Your task to perform on an android device: Check the news Image 0: 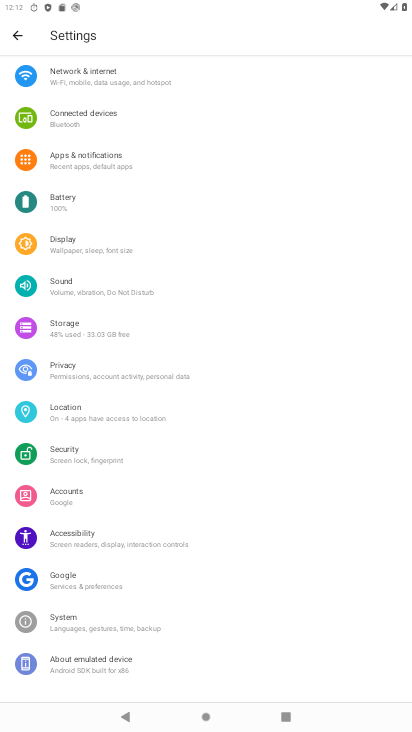
Step 0: press home button
Your task to perform on an android device: Check the news Image 1: 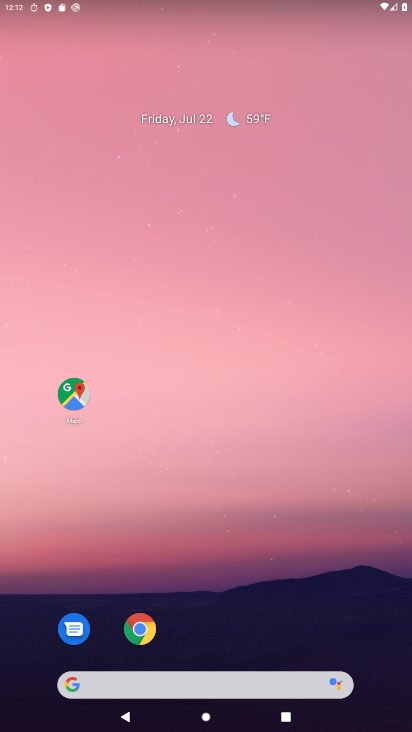
Step 1: drag from (217, 582) to (235, 93)
Your task to perform on an android device: Check the news Image 2: 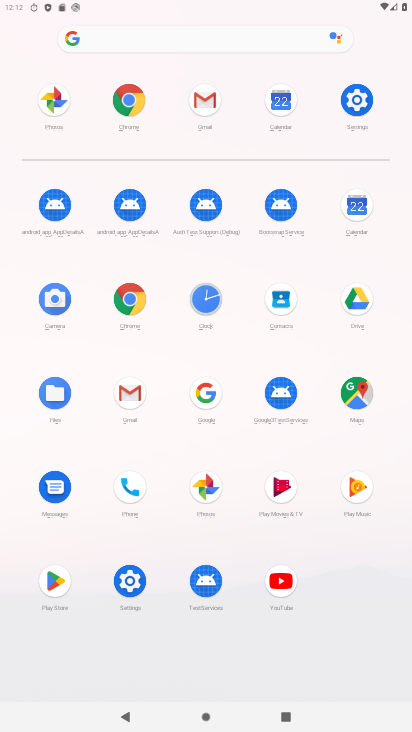
Step 2: click (132, 304)
Your task to perform on an android device: Check the news Image 3: 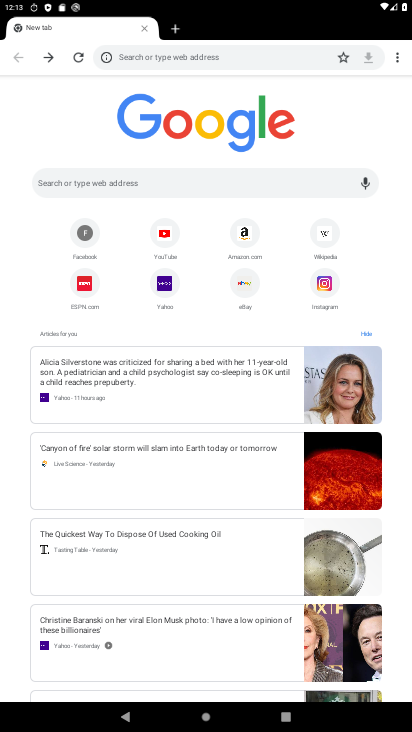
Step 3: click (198, 179)
Your task to perform on an android device: Check the news Image 4: 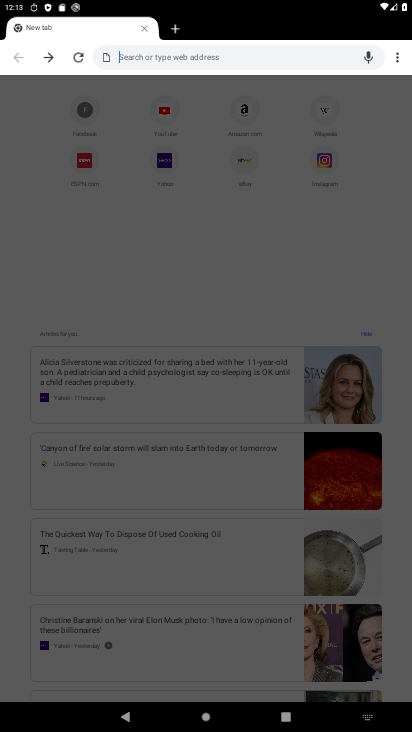
Step 4: click (228, 61)
Your task to perform on an android device: Check the news Image 5: 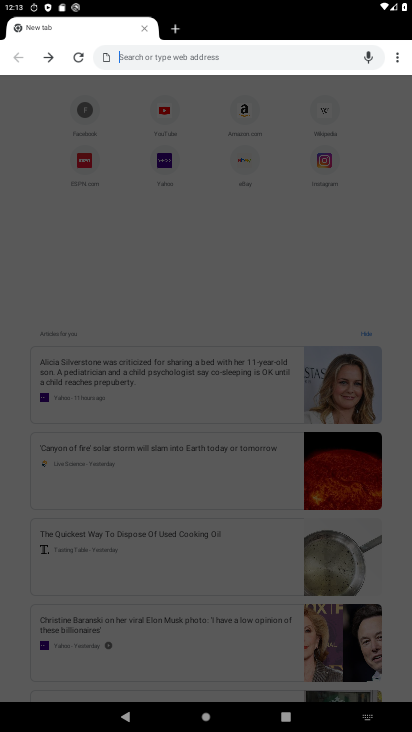
Step 5: type "check the news"
Your task to perform on an android device: Check the news Image 6: 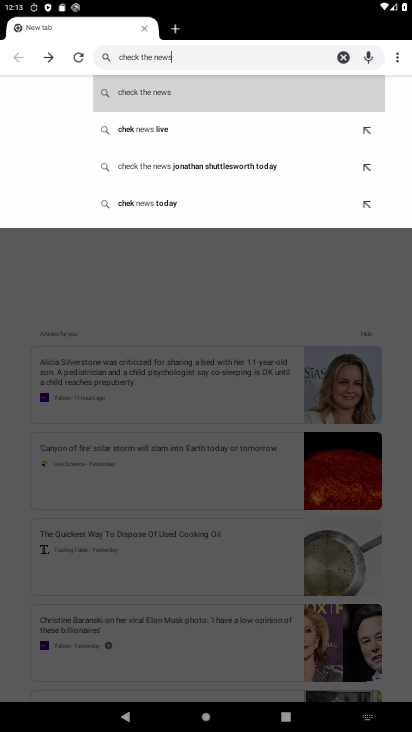
Step 6: click (175, 93)
Your task to perform on an android device: Check the news Image 7: 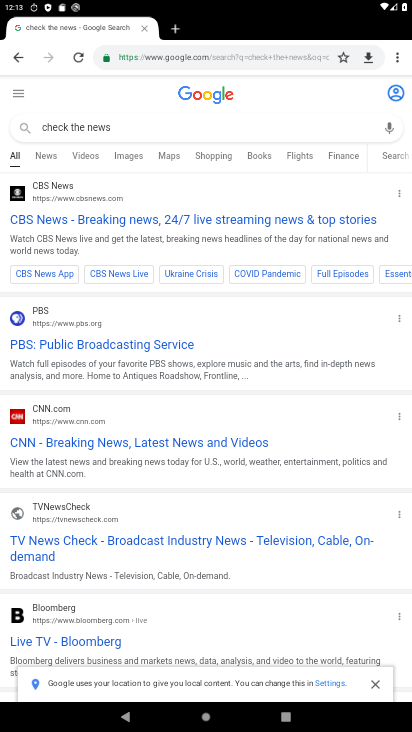
Step 7: task complete